Your task to perform on an android device: toggle airplane mode Image 0: 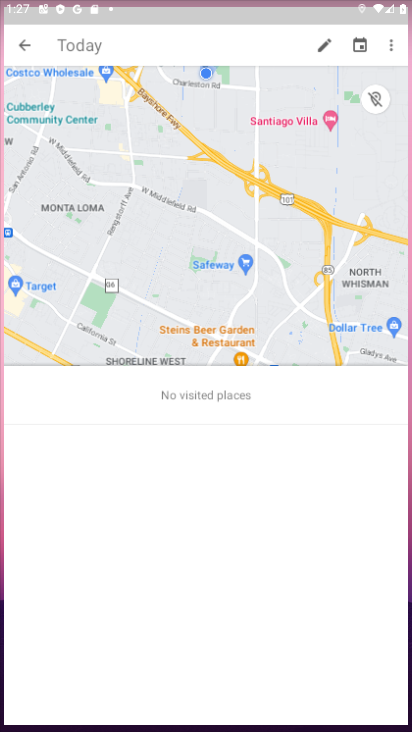
Step 0: press home button
Your task to perform on an android device: toggle airplane mode Image 1: 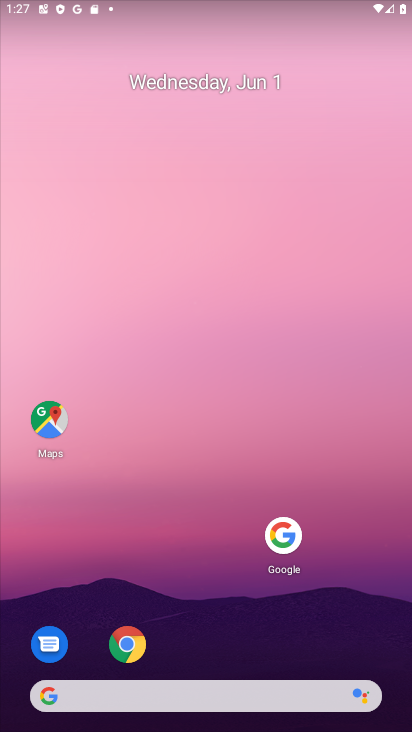
Step 1: drag from (135, 699) to (269, 114)
Your task to perform on an android device: toggle airplane mode Image 2: 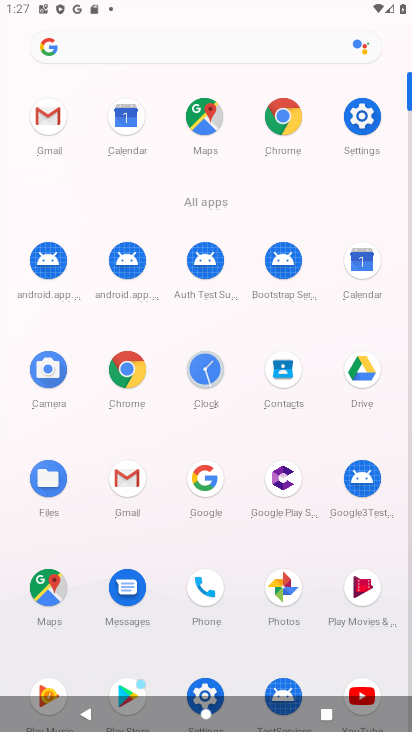
Step 2: click (362, 115)
Your task to perform on an android device: toggle airplane mode Image 3: 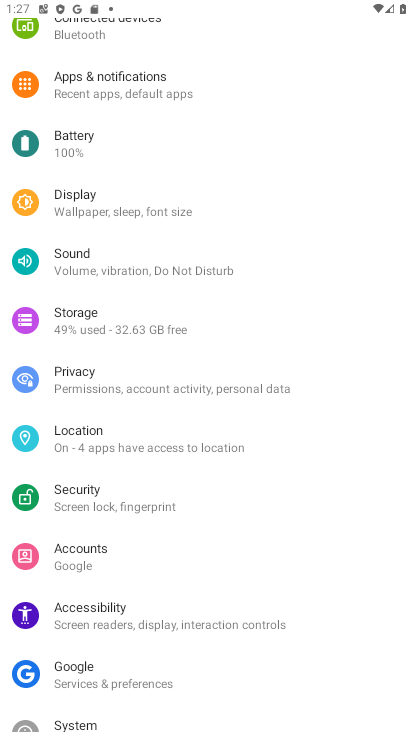
Step 3: drag from (252, 78) to (193, 517)
Your task to perform on an android device: toggle airplane mode Image 4: 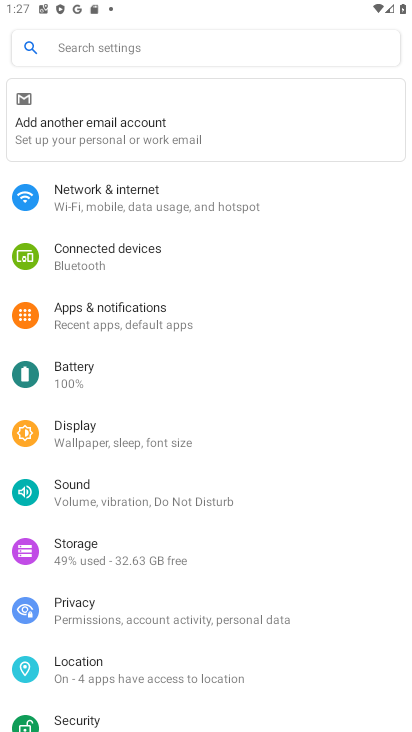
Step 4: click (130, 194)
Your task to perform on an android device: toggle airplane mode Image 5: 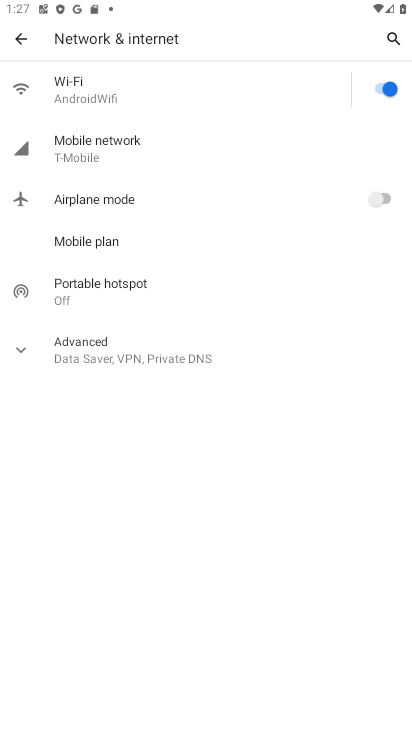
Step 5: click (387, 196)
Your task to perform on an android device: toggle airplane mode Image 6: 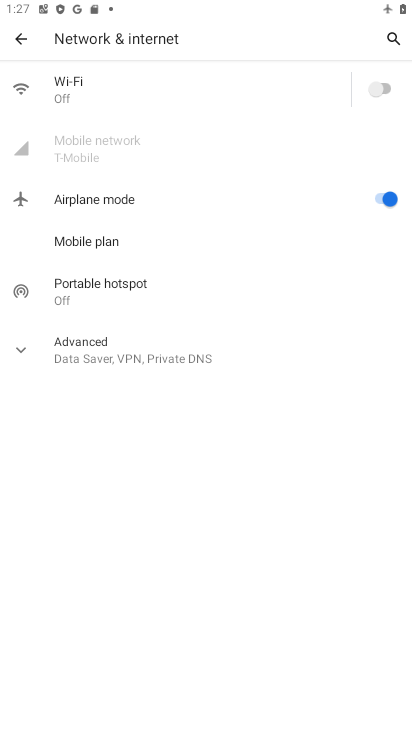
Step 6: task complete